Your task to perform on an android device: Open the stopwatch Image 0: 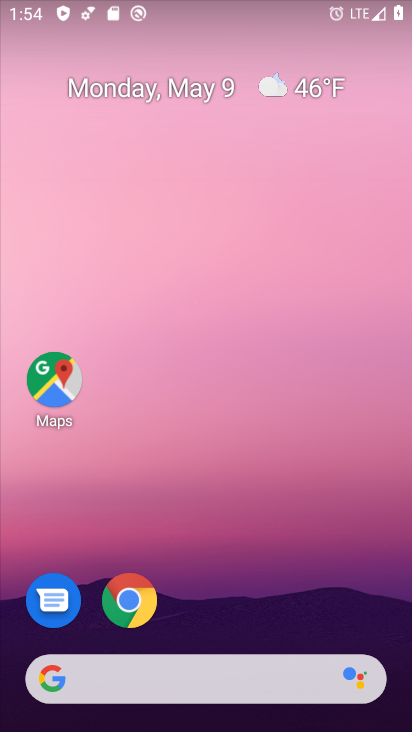
Step 0: drag from (174, 688) to (208, 166)
Your task to perform on an android device: Open the stopwatch Image 1: 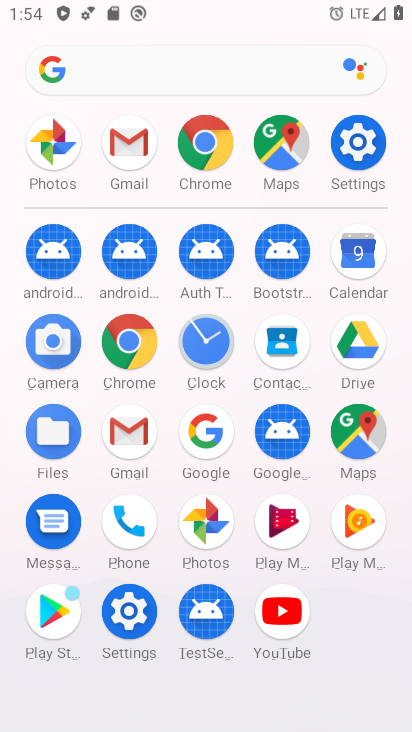
Step 1: click (223, 340)
Your task to perform on an android device: Open the stopwatch Image 2: 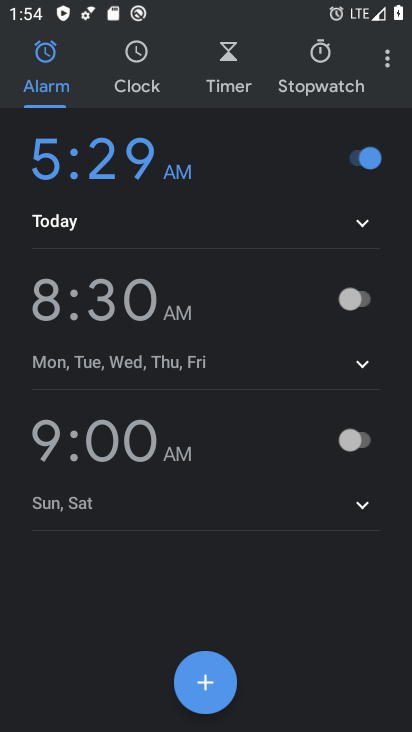
Step 2: click (335, 78)
Your task to perform on an android device: Open the stopwatch Image 3: 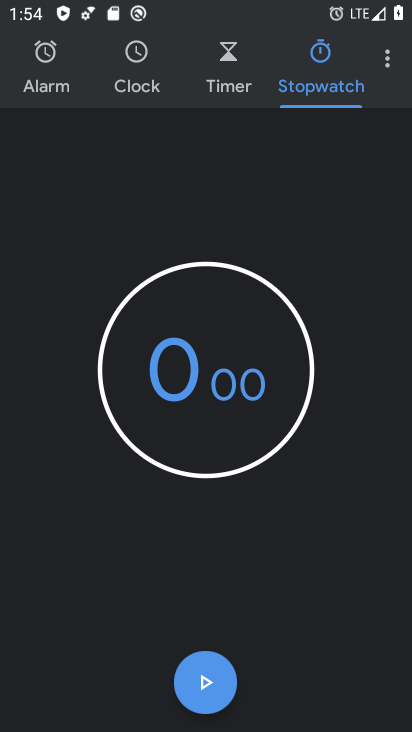
Step 3: click (201, 666)
Your task to perform on an android device: Open the stopwatch Image 4: 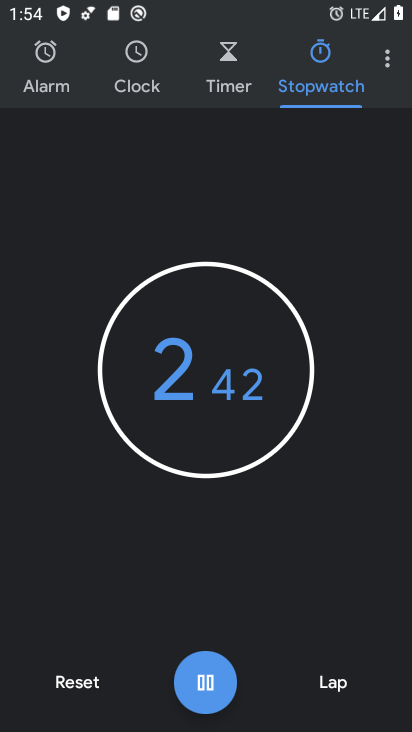
Step 4: task complete